Your task to perform on an android device: see tabs open on other devices in the chrome app Image 0: 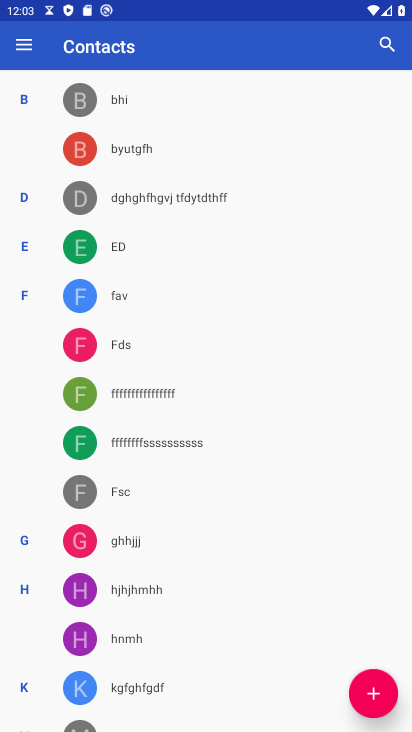
Step 0: press home button
Your task to perform on an android device: see tabs open on other devices in the chrome app Image 1: 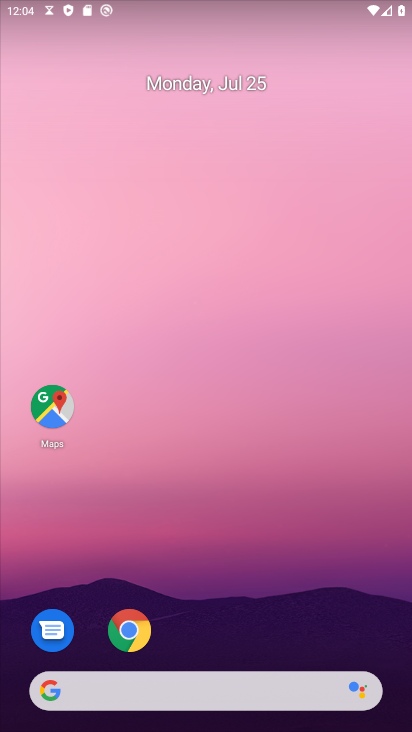
Step 1: click (117, 626)
Your task to perform on an android device: see tabs open on other devices in the chrome app Image 2: 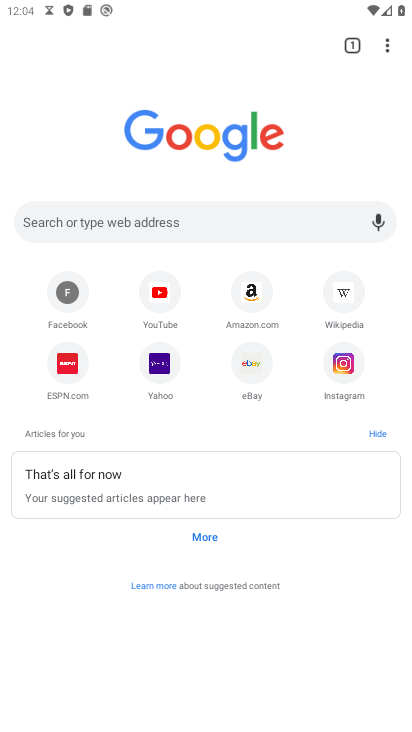
Step 2: click (378, 40)
Your task to perform on an android device: see tabs open on other devices in the chrome app Image 3: 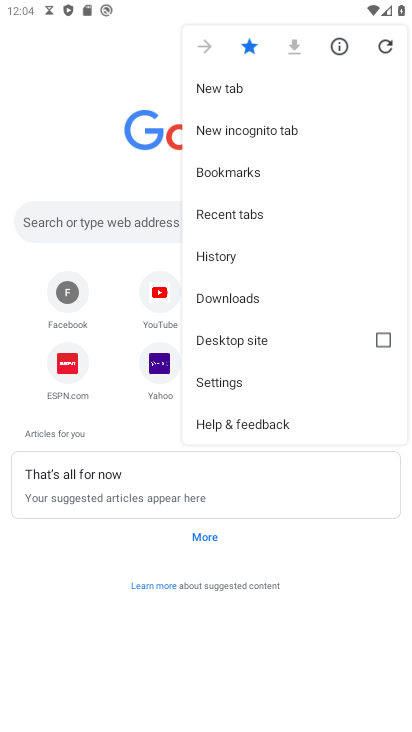
Step 3: click (385, 38)
Your task to perform on an android device: see tabs open on other devices in the chrome app Image 4: 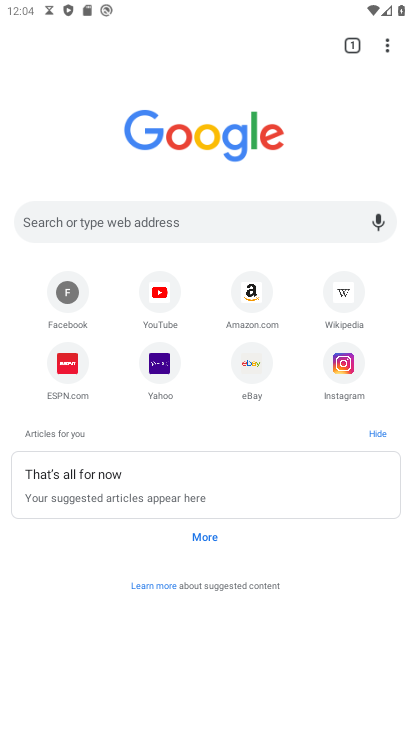
Step 4: task complete